Your task to perform on an android device: Search for Italian restaurants on Maps Image 0: 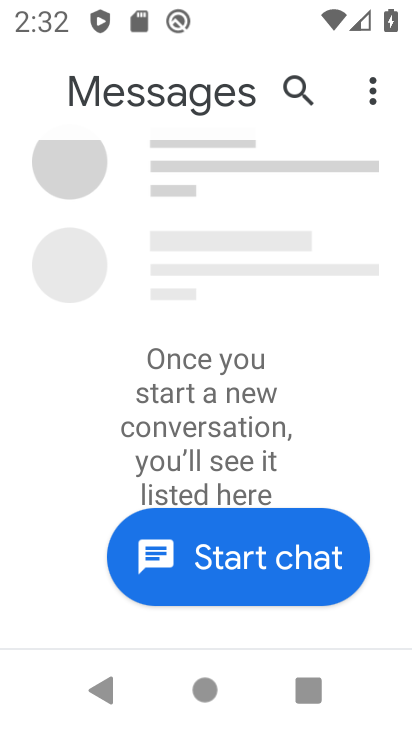
Step 0: press back button
Your task to perform on an android device: Search for Italian restaurants on Maps Image 1: 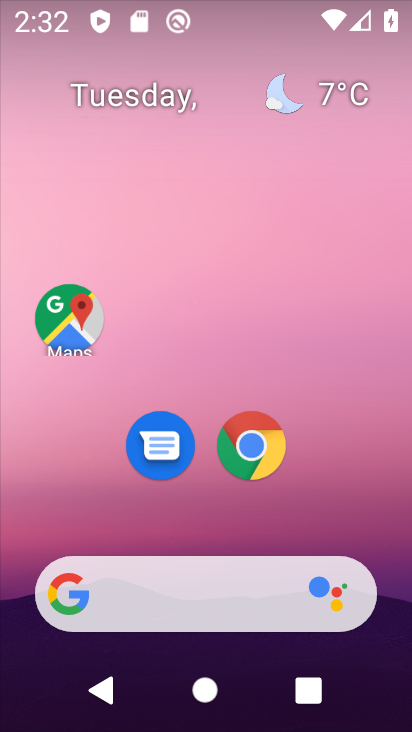
Step 1: click (68, 339)
Your task to perform on an android device: Search for Italian restaurants on Maps Image 2: 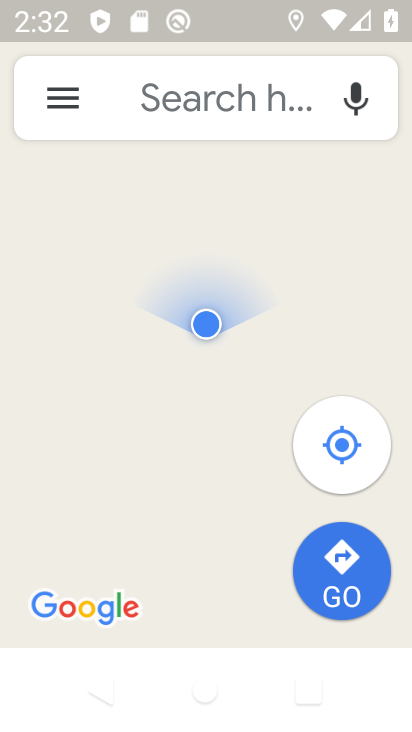
Step 2: click (220, 120)
Your task to perform on an android device: Search for Italian restaurants on Maps Image 3: 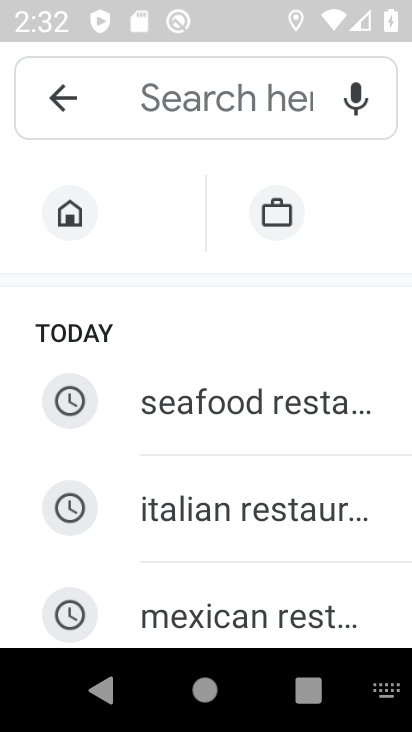
Step 3: type "Italian restaurants "
Your task to perform on an android device: Search for Italian restaurants on Maps Image 4: 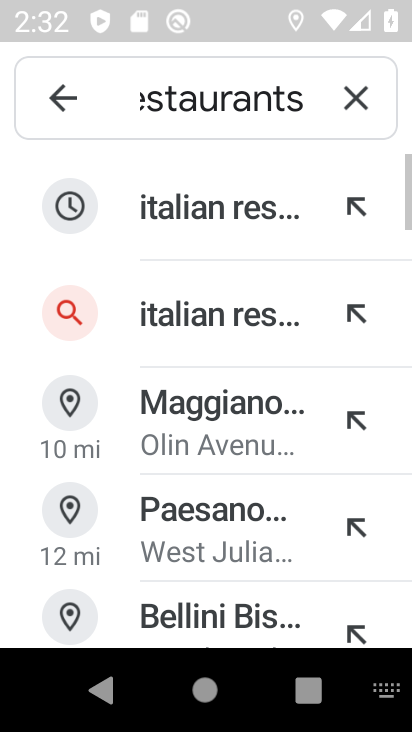
Step 4: click (214, 213)
Your task to perform on an android device: Search for Italian restaurants on Maps Image 5: 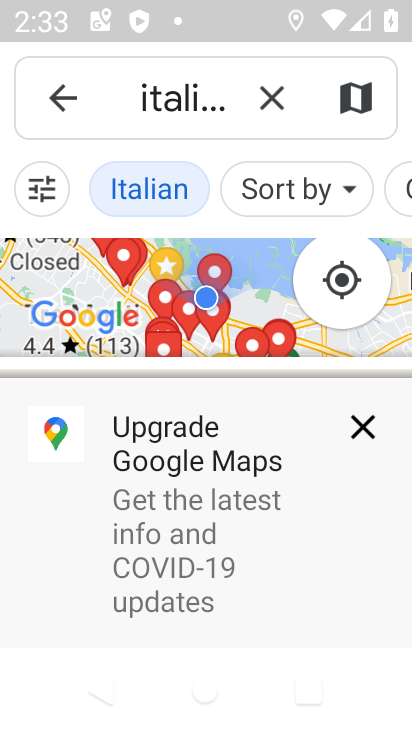
Step 5: click (357, 432)
Your task to perform on an android device: Search for Italian restaurants on Maps Image 6: 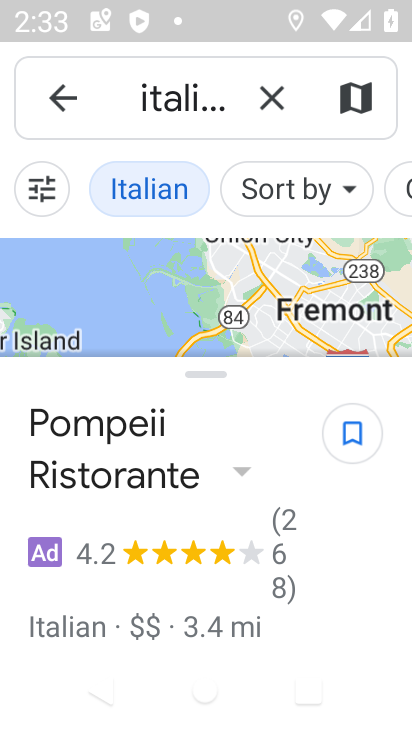
Step 6: task complete